Your task to perform on an android device: change text size in settings app Image 0: 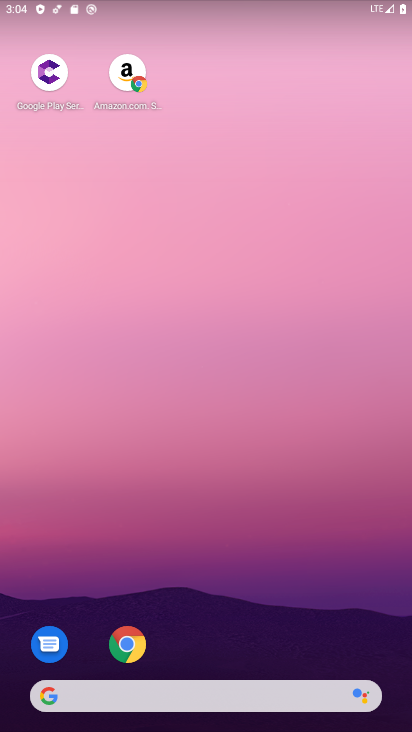
Step 0: drag from (297, 363) to (279, 75)
Your task to perform on an android device: change text size in settings app Image 1: 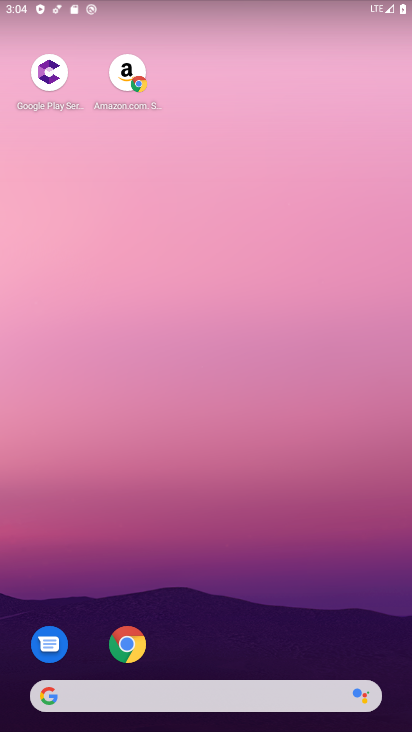
Step 1: drag from (290, 602) to (256, 67)
Your task to perform on an android device: change text size in settings app Image 2: 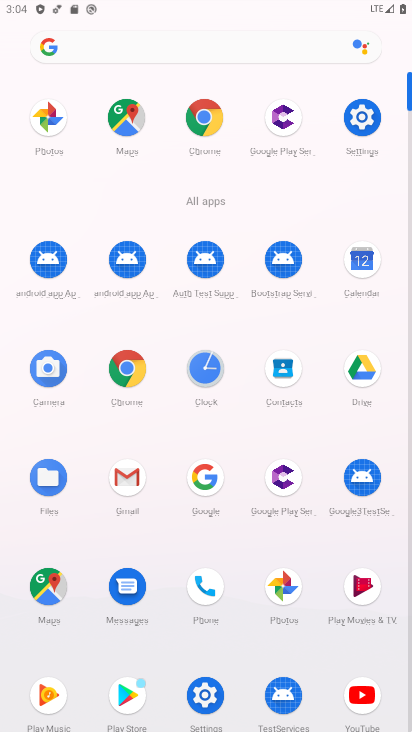
Step 2: click (367, 131)
Your task to perform on an android device: change text size in settings app Image 3: 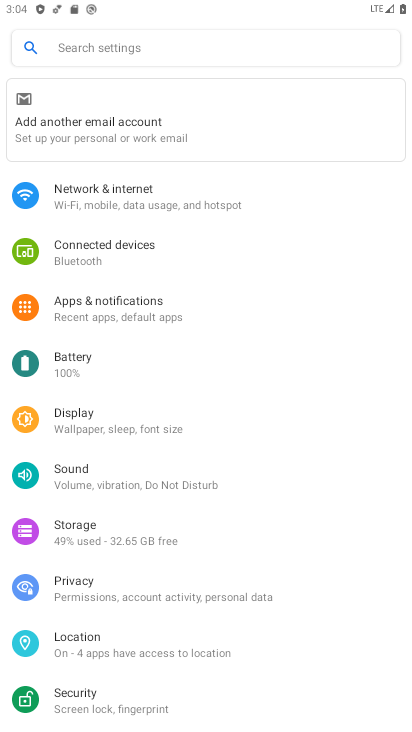
Step 3: click (144, 417)
Your task to perform on an android device: change text size in settings app Image 4: 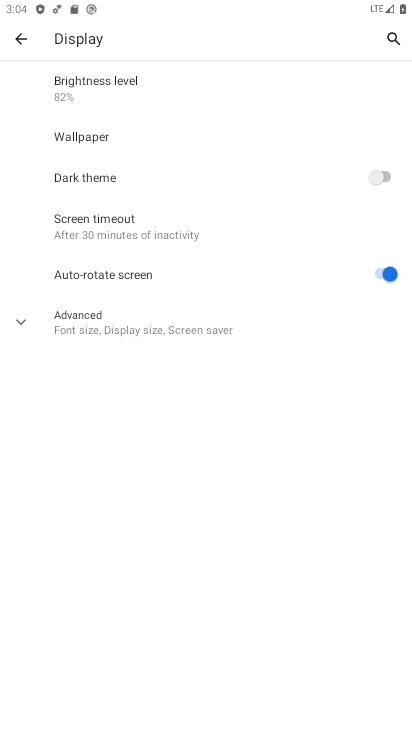
Step 4: click (110, 327)
Your task to perform on an android device: change text size in settings app Image 5: 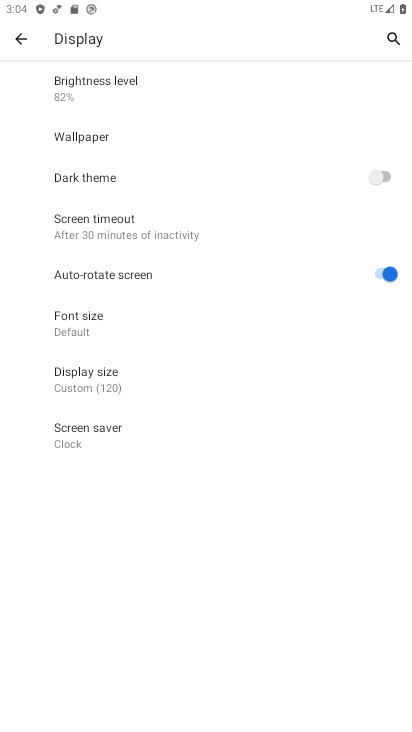
Step 5: click (69, 335)
Your task to perform on an android device: change text size in settings app Image 6: 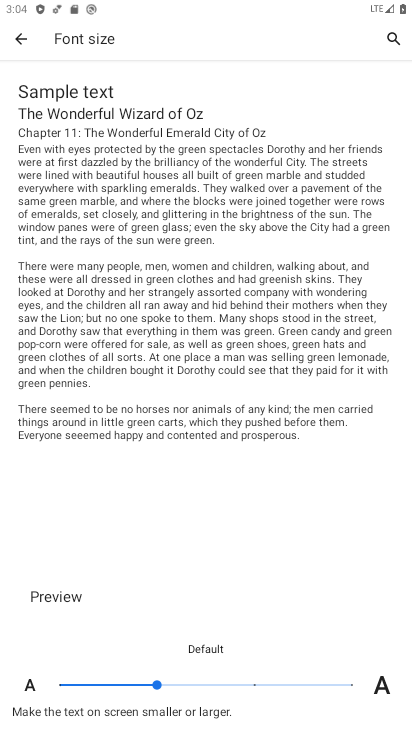
Step 6: click (191, 693)
Your task to perform on an android device: change text size in settings app Image 7: 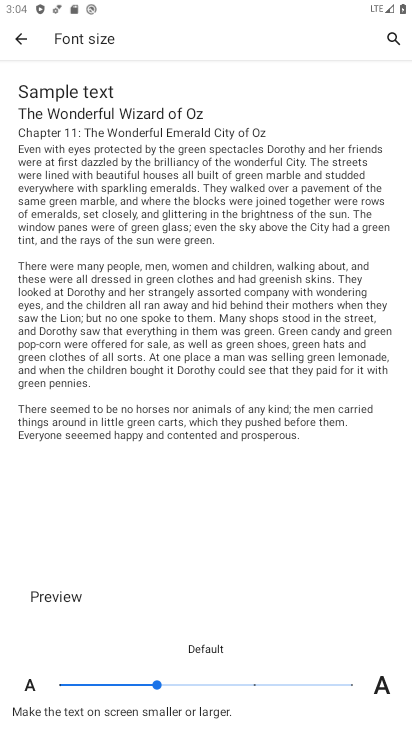
Step 7: click (192, 680)
Your task to perform on an android device: change text size in settings app Image 8: 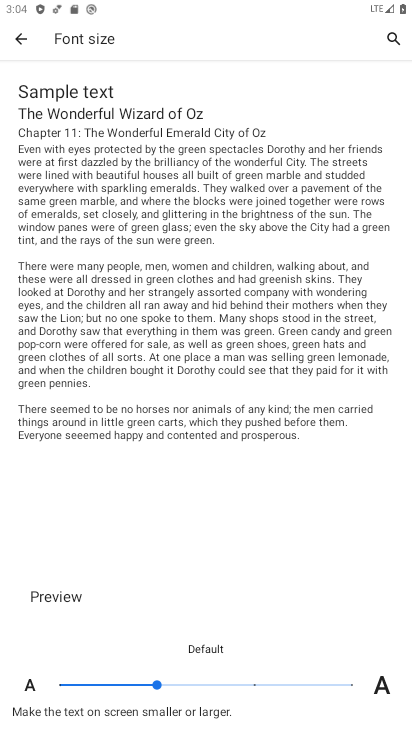
Step 8: click (192, 680)
Your task to perform on an android device: change text size in settings app Image 9: 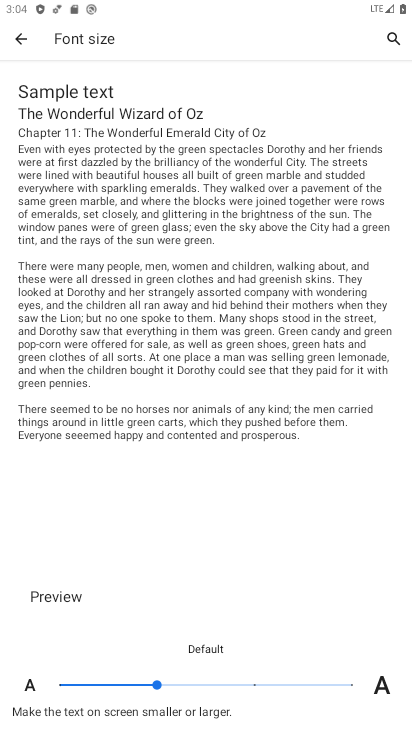
Step 9: click (192, 680)
Your task to perform on an android device: change text size in settings app Image 10: 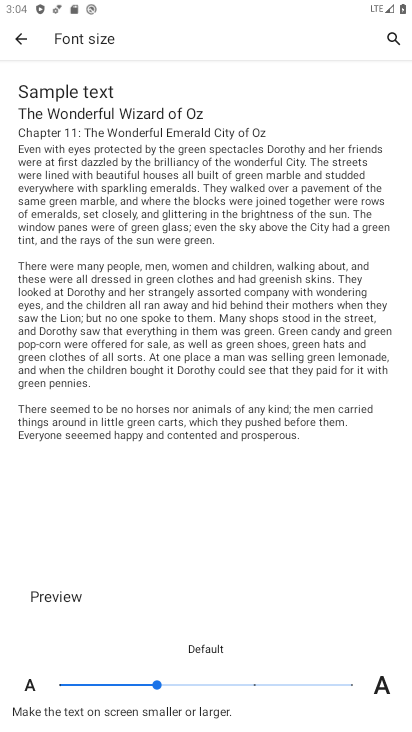
Step 10: task complete